Your task to perform on an android device: change keyboard looks Image 0: 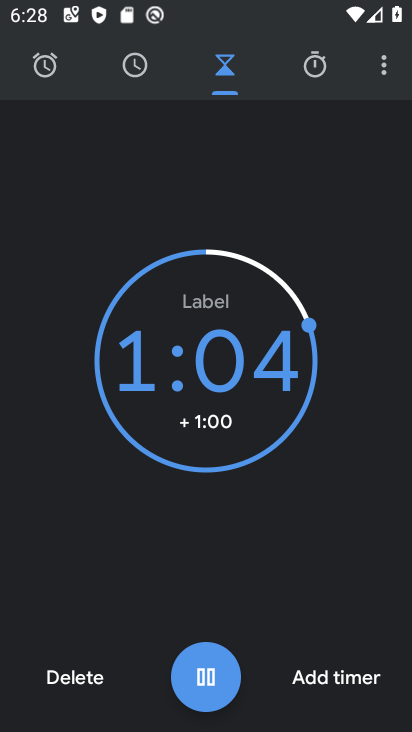
Step 0: press back button
Your task to perform on an android device: change keyboard looks Image 1: 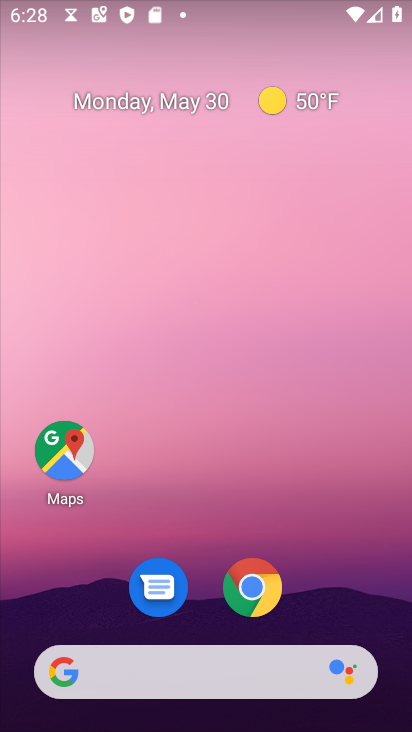
Step 1: drag from (339, 584) to (232, 58)
Your task to perform on an android device: change keyboard looks Image 2: 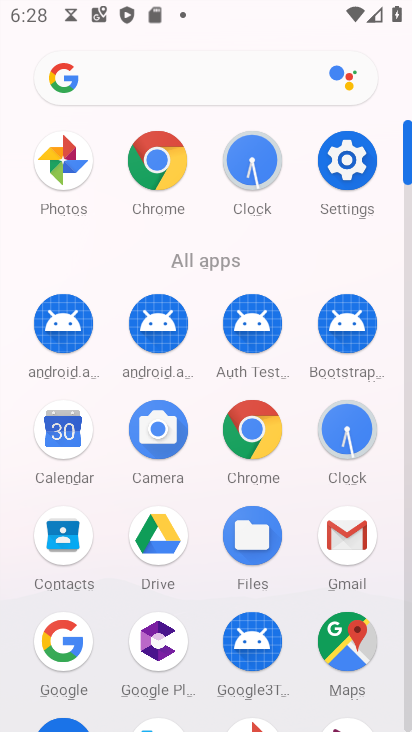
Step 2: drag from (13, 563) to (0, 225)
Your task to perform on an android device: change keyboard looks Image 3: 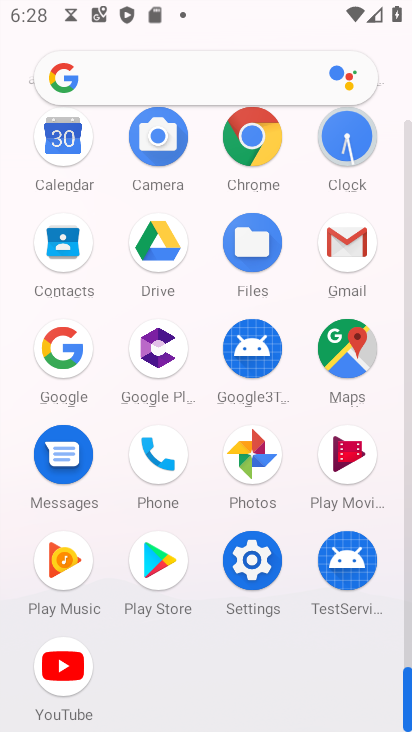
Step 3: click (250, 557)
Your task to perform on an android device: change keyboard looks Image 4: 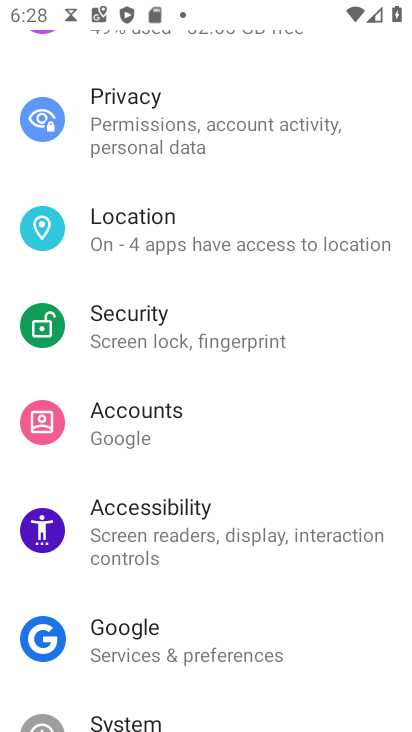
Step 4: drag from (311, 587) to (325, 101)
Your task to perform on an android device: change keyboard looks Image 5: 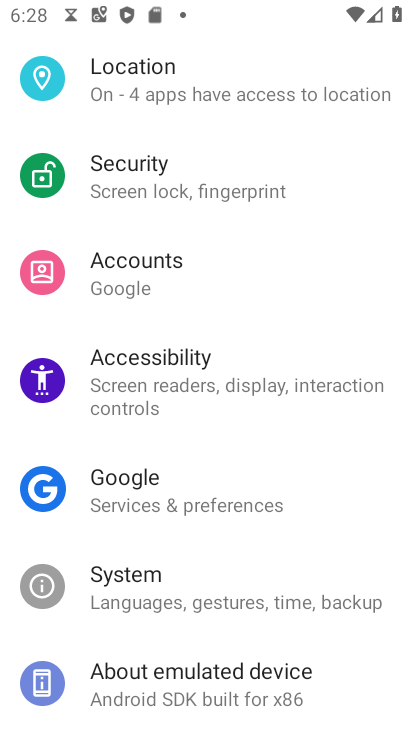
Step 5: click (155, 579)
Your task to perform on an android device: change keyboard looks Image 6: 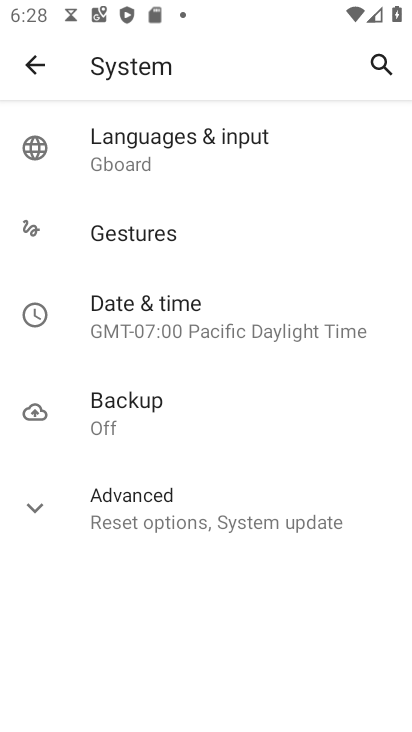
Step 6: click (90, 499)
Your task to perform on an android device: change keyboard looks Image 7: 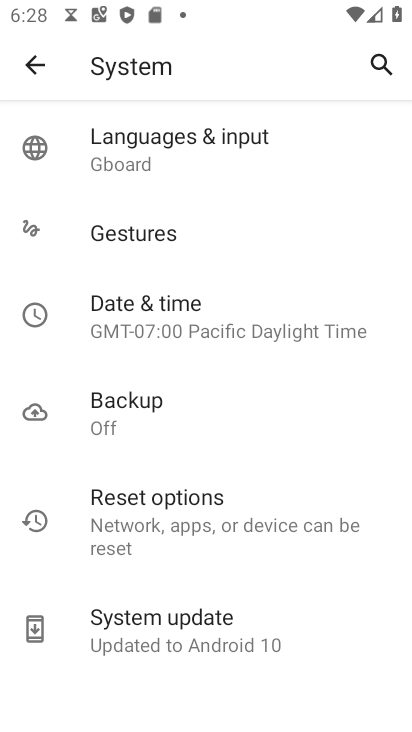
Step 7: click (166, 134)
Your task to perform on an android device: change keyboard looks Image 8: 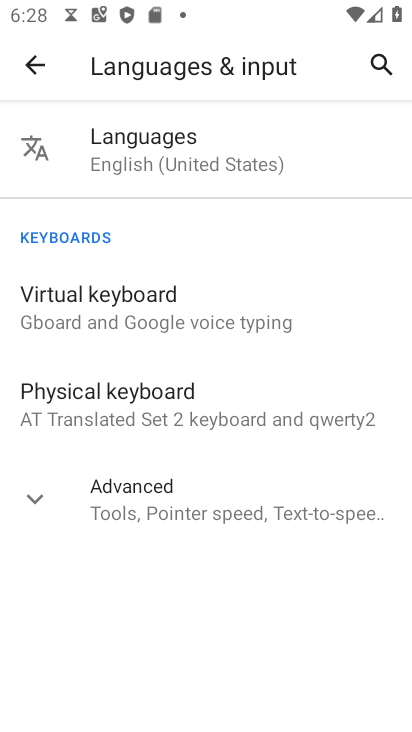
Step 8: click (82, 479)
Your task to perform on an android device: change keyboard looks Image 9: 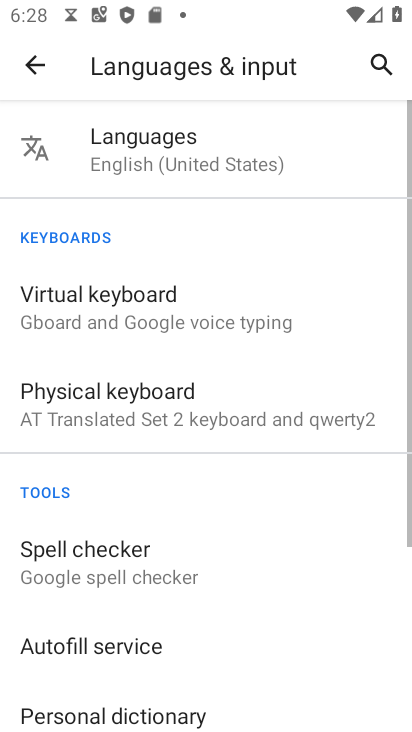
Step 9: click (175, 268)
Your task to perform on an android device: change keyboard looks Image 10: 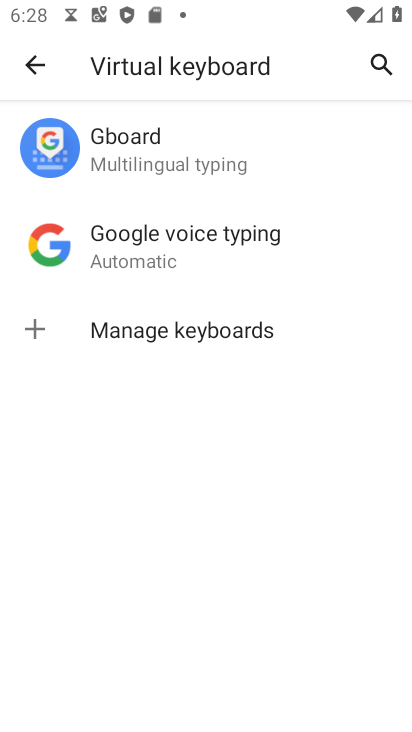
Step 10: click (178, 152)
Your task to perform on an android device: change keyboard looks Image 11: 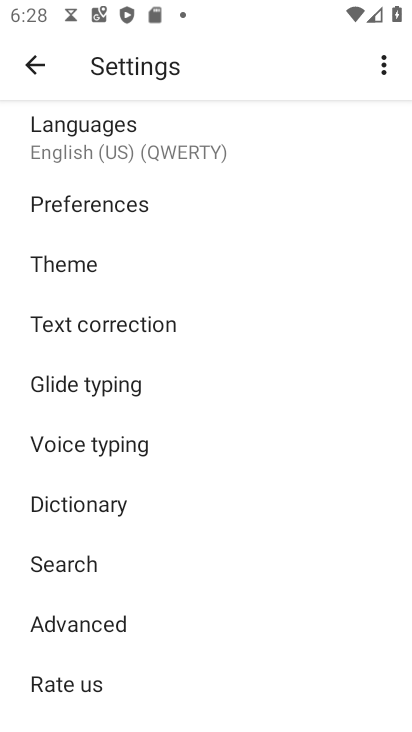
Step 11: click (119, 264)
Your task to perform on an android device: change keyboard looks Image 12: 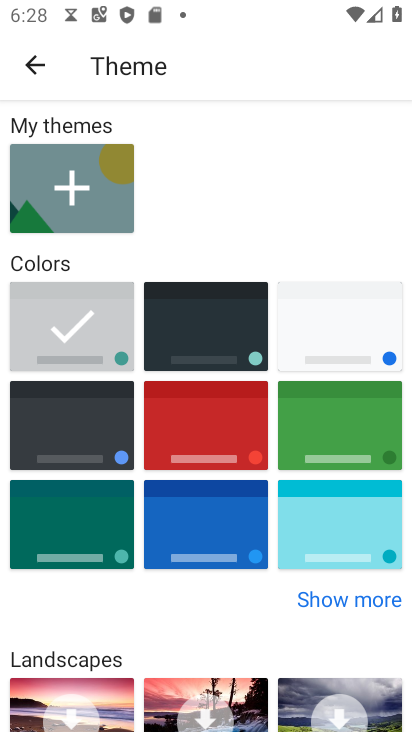
Step 12: click (173, 313)
Your task to perform on an android device: change keyboard looks Image 13: 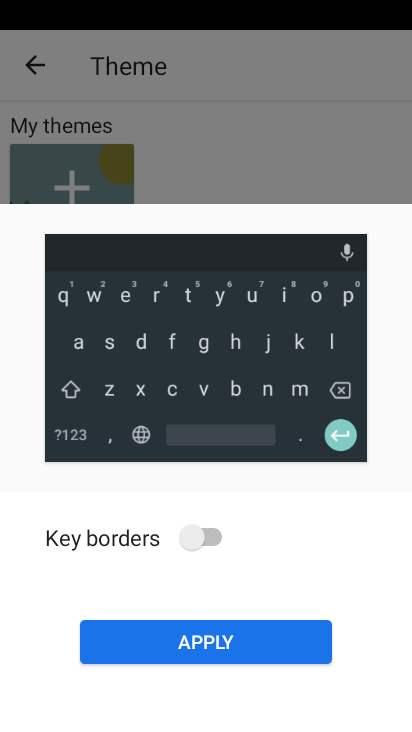
Step 13: click (205, 634)
Your task to perform on an android device: change keyboard looks Image 14: 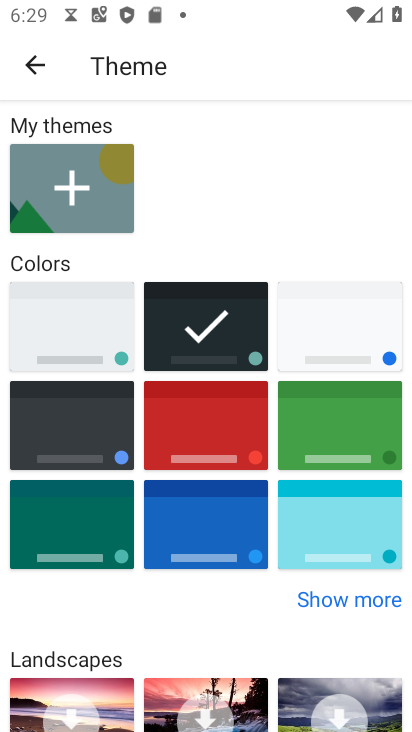
Step 14: task complete